Your task to perform on an android device: Open network settings Image 0: 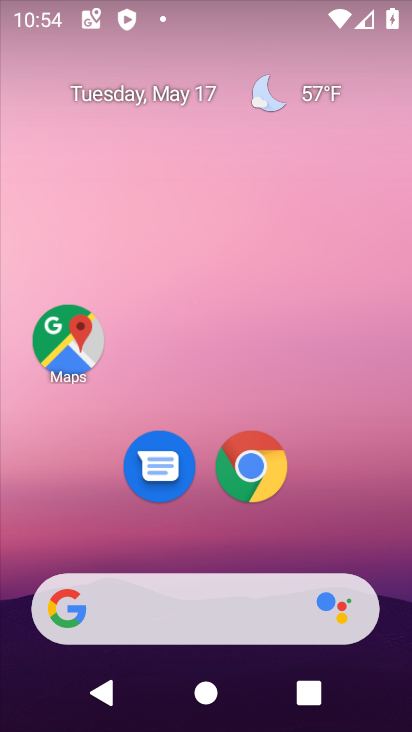
Step 0: drag from (198, 548) to (170, 19)
Your task to perform on an android device: Open network settings Image 1: 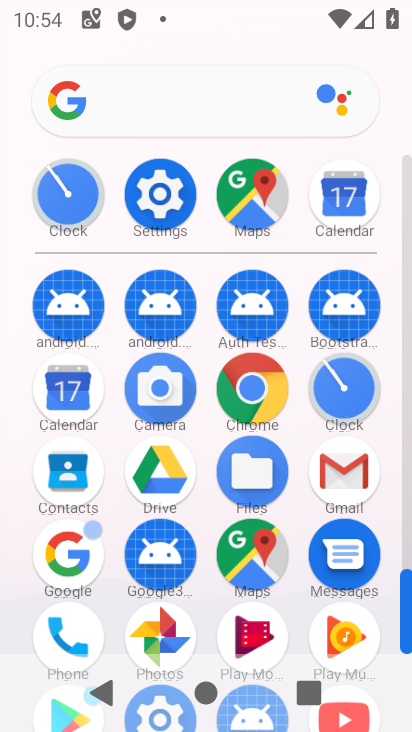
Step 1: click (171, 202)
Your task to perform on an android device: Open network settings Image 2: 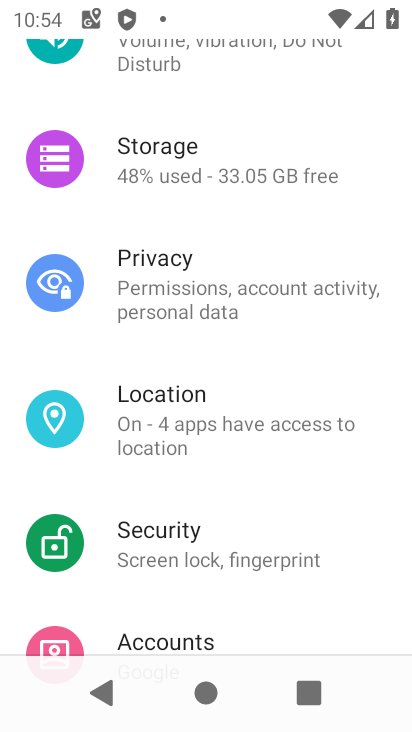
Step 2: drag from (183, 184) to (143, 578)
Your task to perform on an android device: Open network settings Image 3: 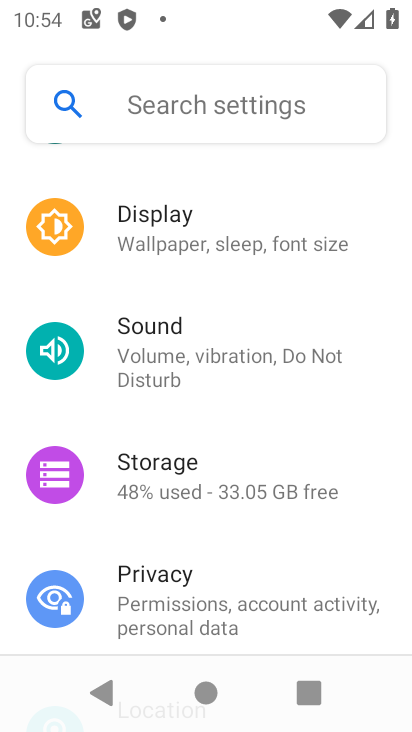
Step 3: drag from (178, 213) to (172, 581)
Your task to perform on an android device: Open network settings Image 4: 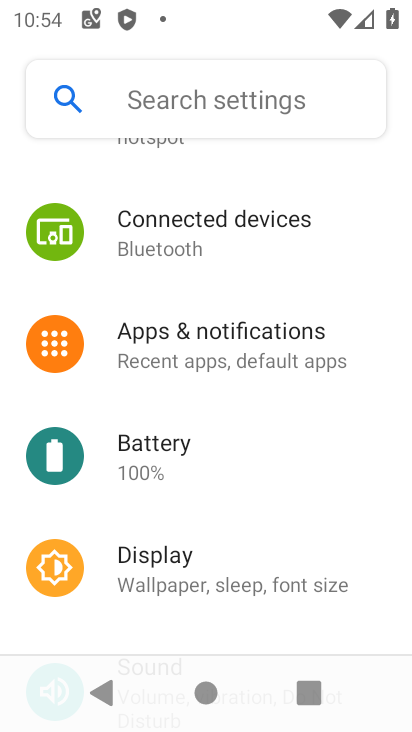
Step 4: click (169, 161)
Your task to perform on an android device: Open network settings Image 5: 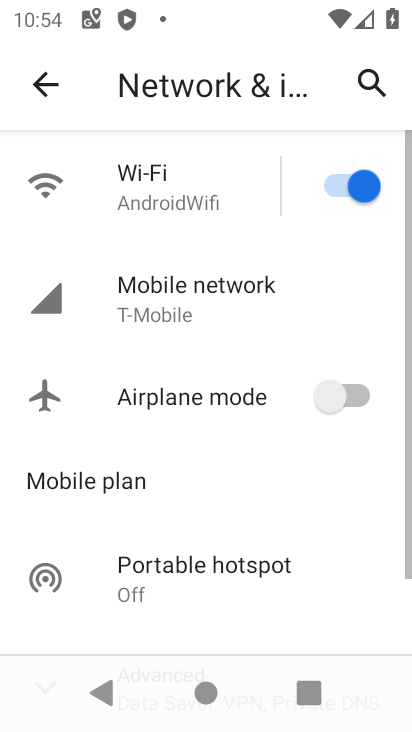
Step 5: click (177, 309)
Your task to perform on an android device: Open network settings Image 6: 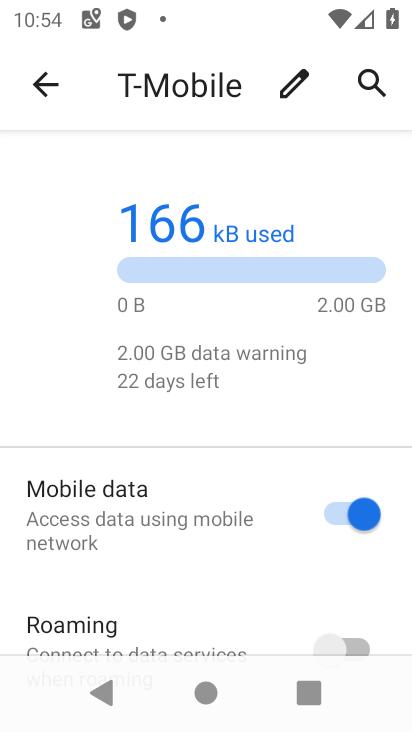
Step 6: task complete